Your task to perform on an android device: Play the last video I watched on Youtube Image 0: 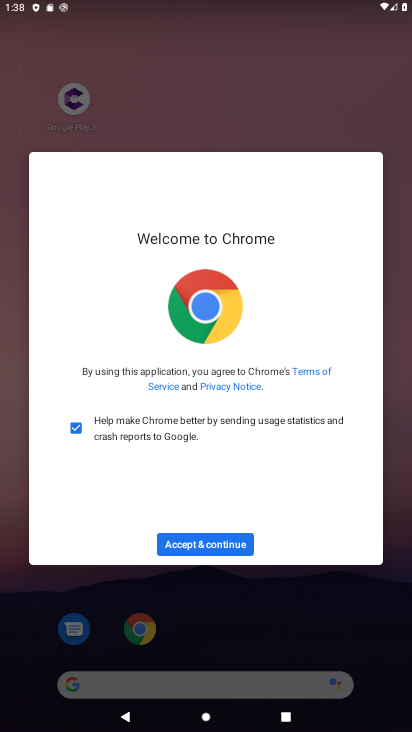
Step 0: press home button
Your task to perform on an android device: Play the last video I watched on Youtube Image 1: 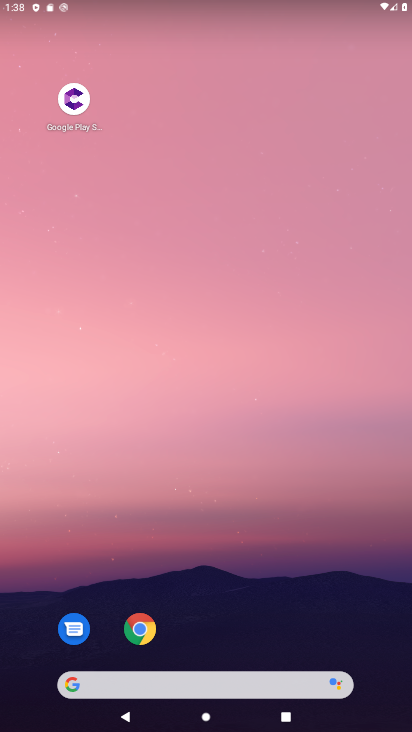
Step 1: drag from (274, 612) to (247, 103)
Your task to perform on an android device: Play the last video I watched on Youtube Image 2: 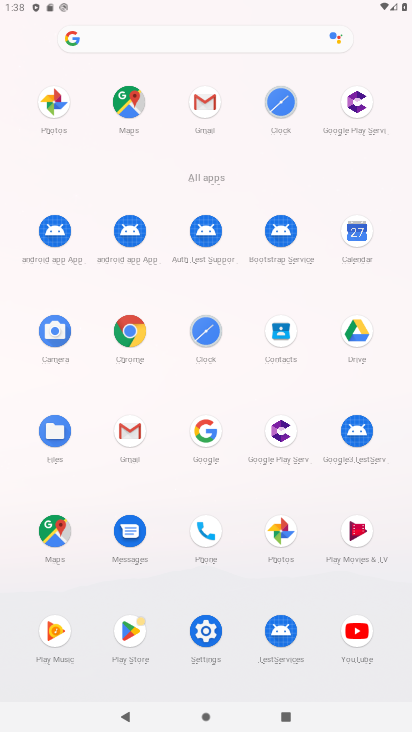
Step 2: click (360, 631)
Your task to perform on an android device: Play the last video I watched on Youtube Image 3: 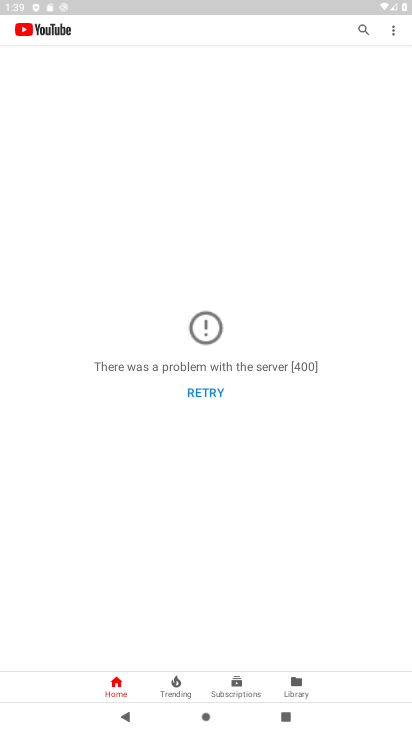
Step 3: click (208, 387)
Your task to perform on an android device: Play the last video I watched on Youtube Image 4: 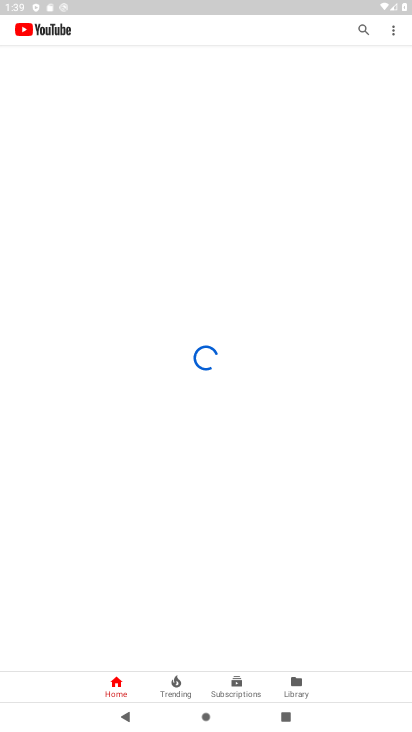
Step 4: click (208, 387)
Your task to perform on an android device: Play the last video I watched on Youtube Image 5: 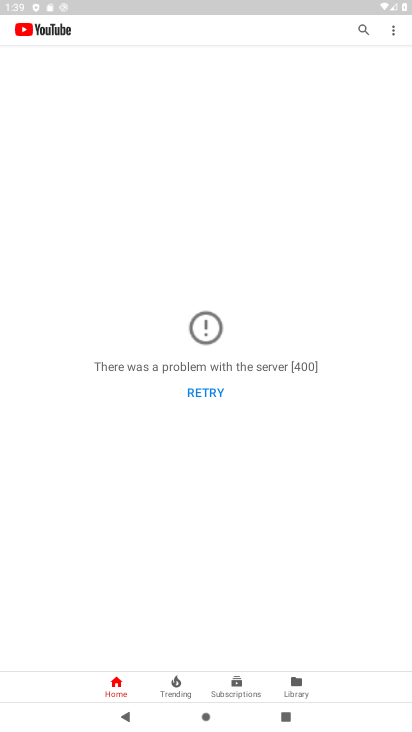
Step 5: task complete